Your task to perform on an android device: show emergency info Image 0: 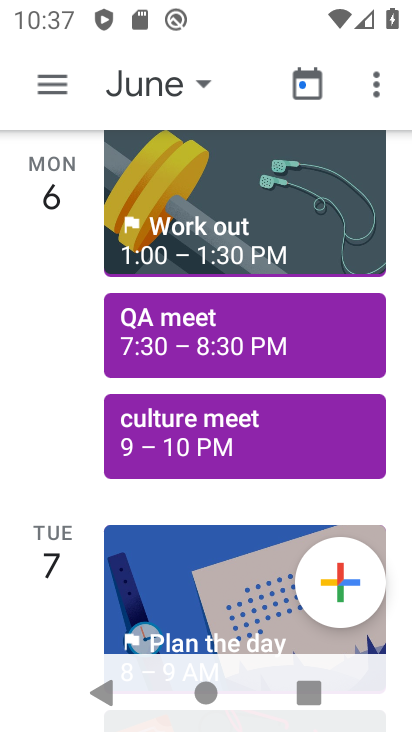
Step 0: press home button
Your task to perform on an android device: show emergency info Image 1: 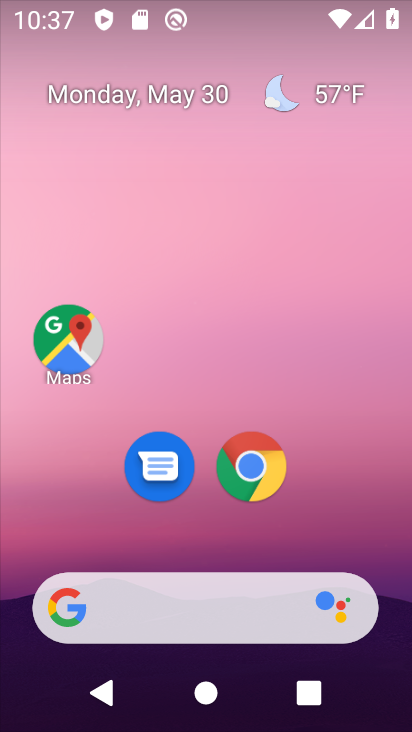
Step 1: drag from (320, 525) to (297, 58)
Your task to perform on an android device: show emergency info Image 2: 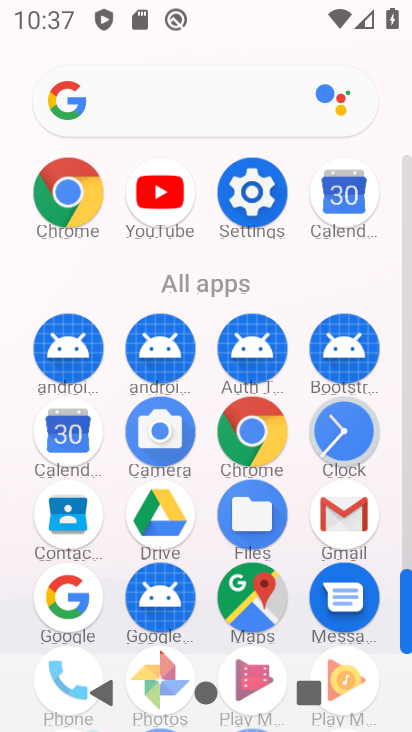
Step 2: click (253, 205)
Your task to perform on an android device: show emergency info Image 3: 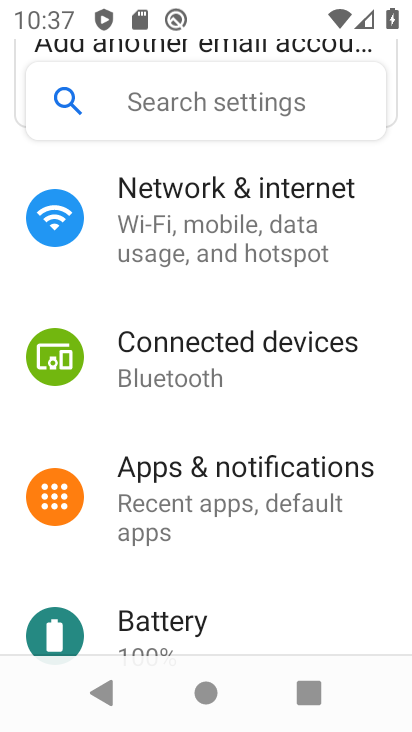
Step 3: drag from (358, 623) to (355, 44)
Your task to perform on an android device: show emergency info Image 4: 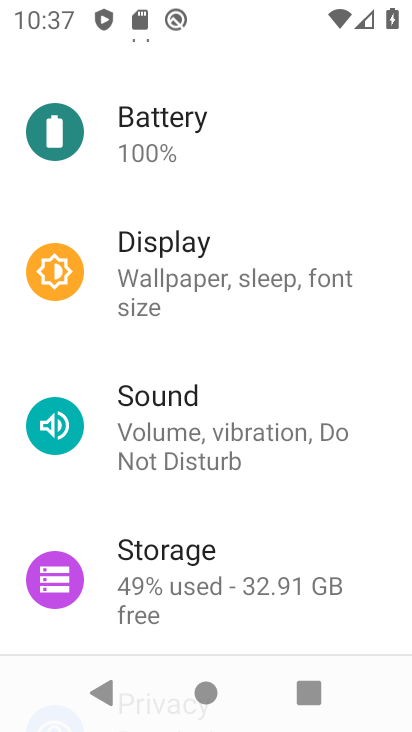
Step 4: drag from (359, 630) to (361, 80)
Your task to perform on an android device: show emergency info Image 5: 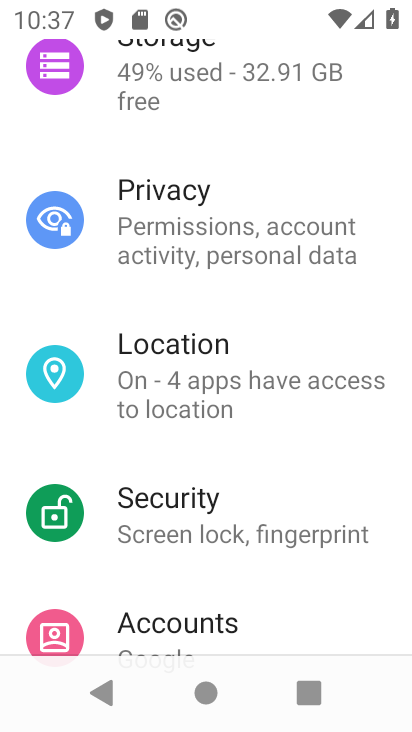
Step 5: drag from (357, 616) to (391, 4)
Your task to perform on an android device: show emergency info Image 6: 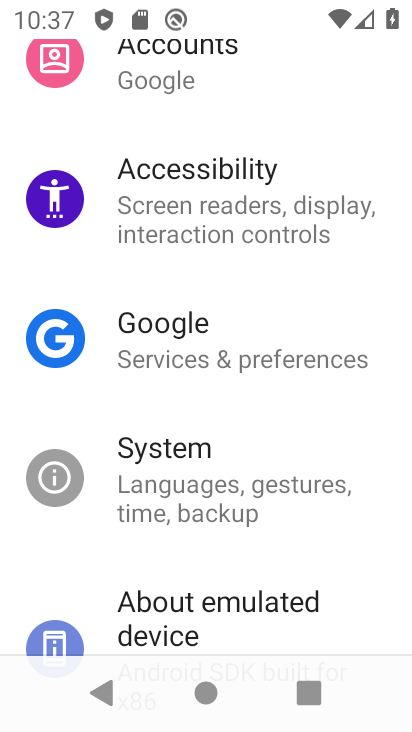
Step 6: drag from (358, 609) to (372, 323)
Your task to perform on an android device: show emergency info Image 7: 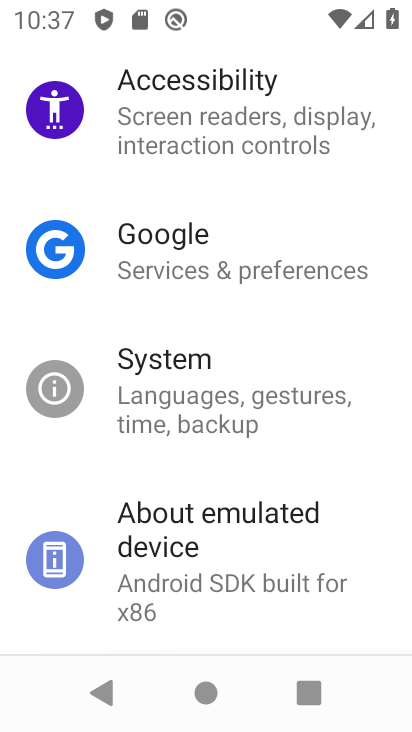
Step 7: click (260, 521)
Your task to perform on an android device: show emergency info Image 8: 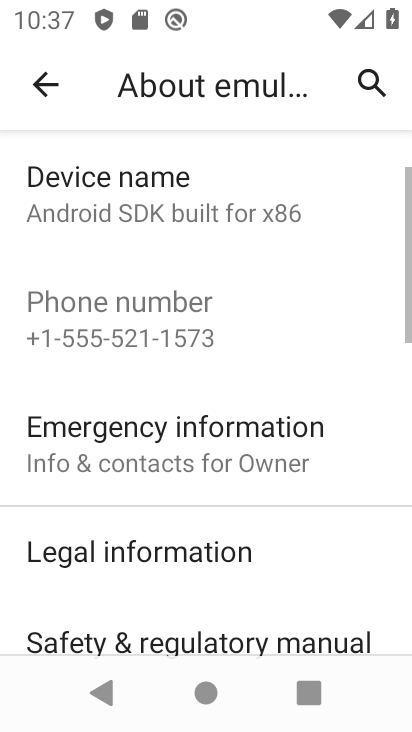
Step 8: drag from (344, 615) to (344, 114)
Your task to perform on an android device: show emergency info Image 9: 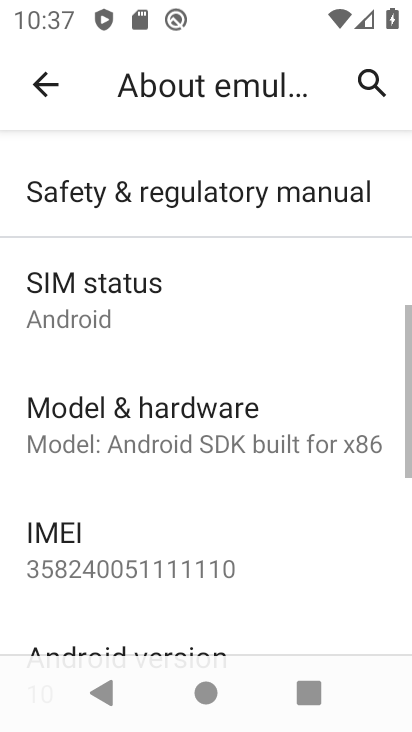
Step 9: drag from (350, 608) to (344, 677)
Your task to perform on an android device: show emergency info Image 10: 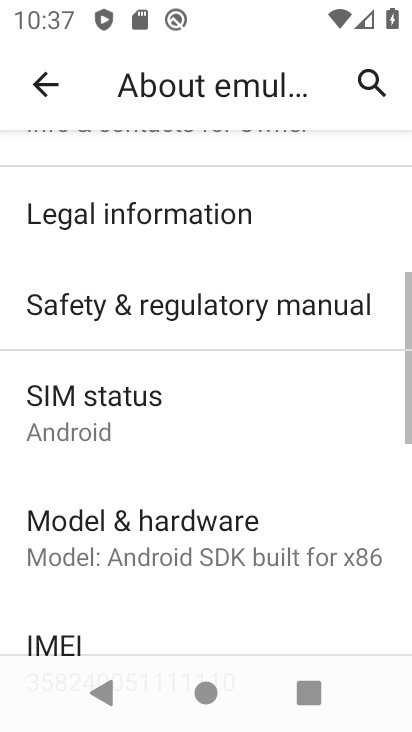
Step 10: drag from (353, 200) to (335, 592)
Your task to perform on an android device: show emergency info Image 11: 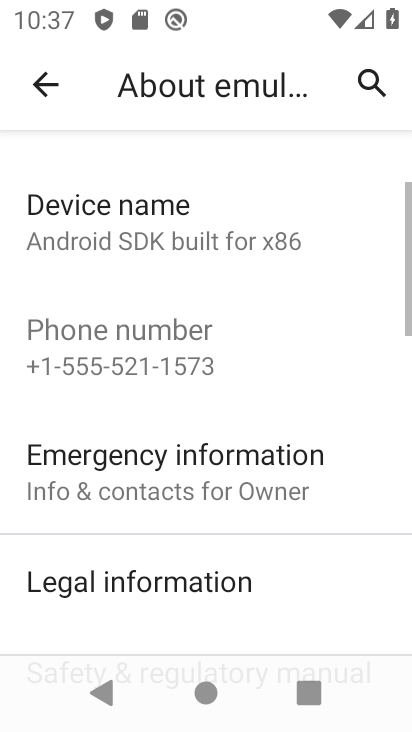
Step 11: click (252, 477)
Your task to perform on an android device: show emergency info Image 12: 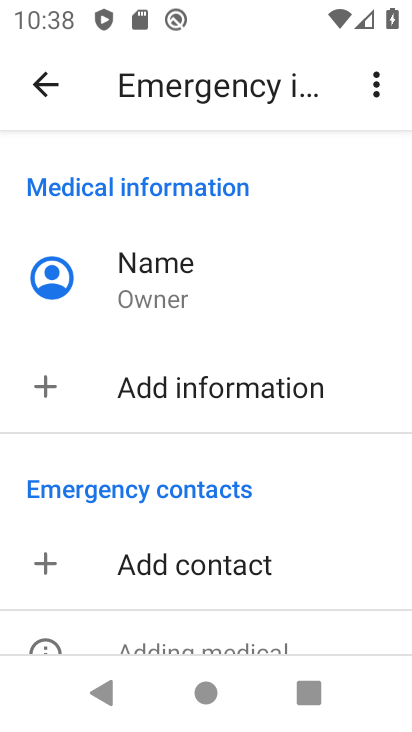
Step 12: task complete